Your task to perform on an android device: see tabs open on other devices in the chrome app Image 0: 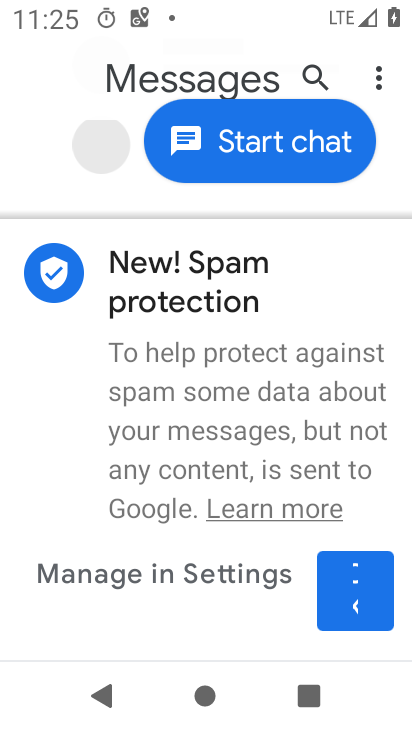
Step 0: press back button
Your task to perform on an android device: see tabs open on other devices in the chrome app Image 1: 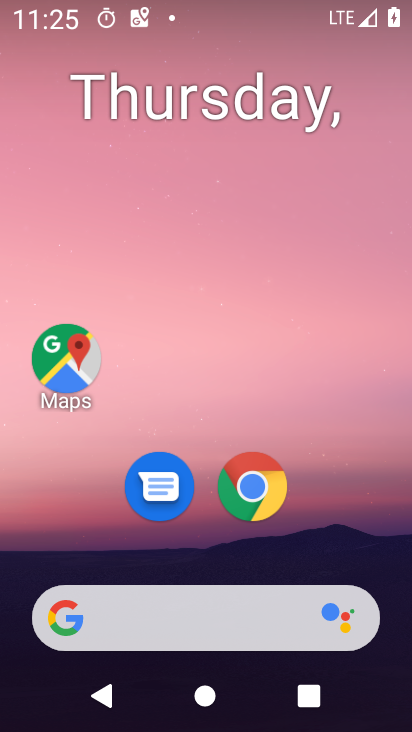
Step 1: click (244, 480)
Your task to perform on an android device: see tabs open on other devices in the chrome app Image 2: 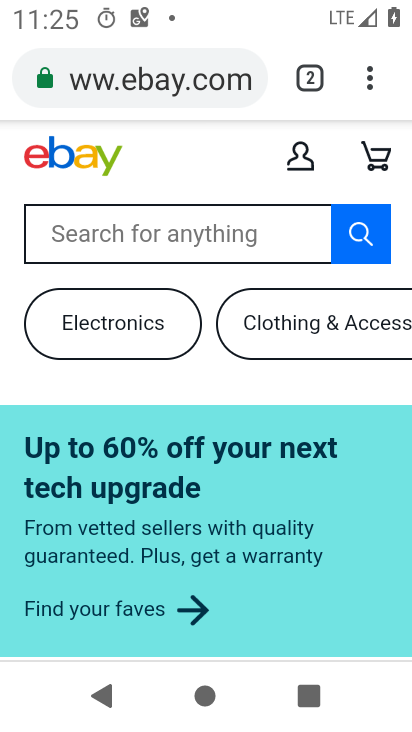
Step 2: task complete